Your task to perform on an android device: Search for the new ikea dresser Image 0: 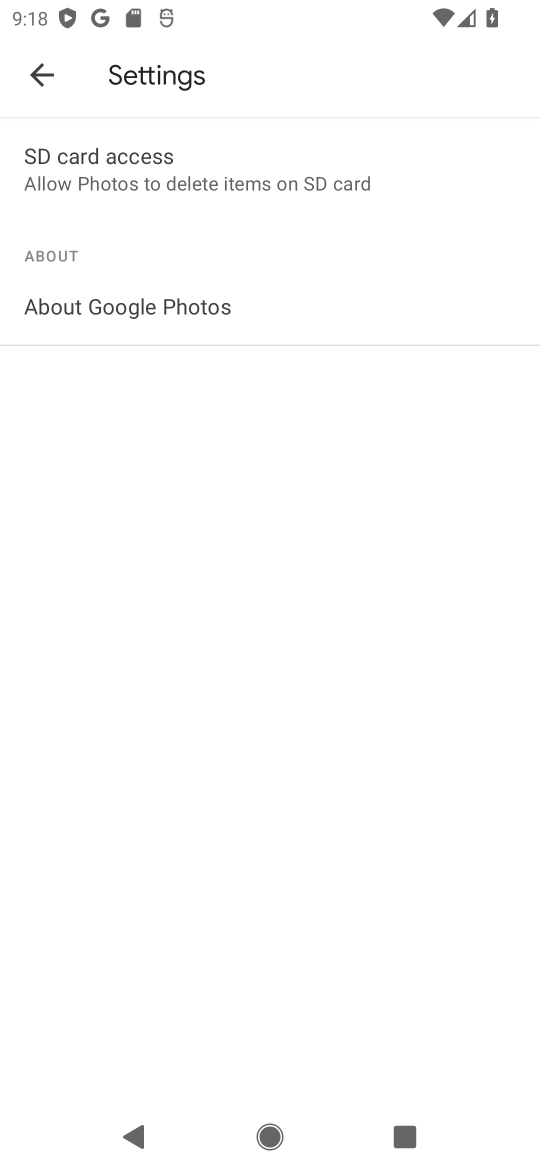
Step 0: press home button
Your task to perform on an android device: Search for the new ikea dresser Image 1: 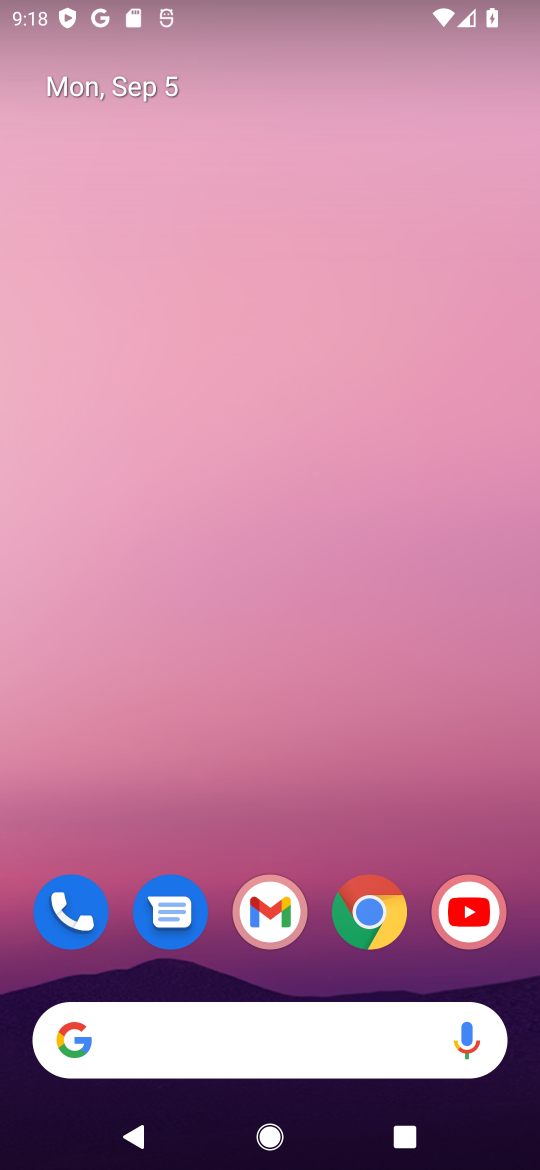
Step 1: click (370, 926)
Your task to perform on an android device: Search for the new ikea dresser Image 2: 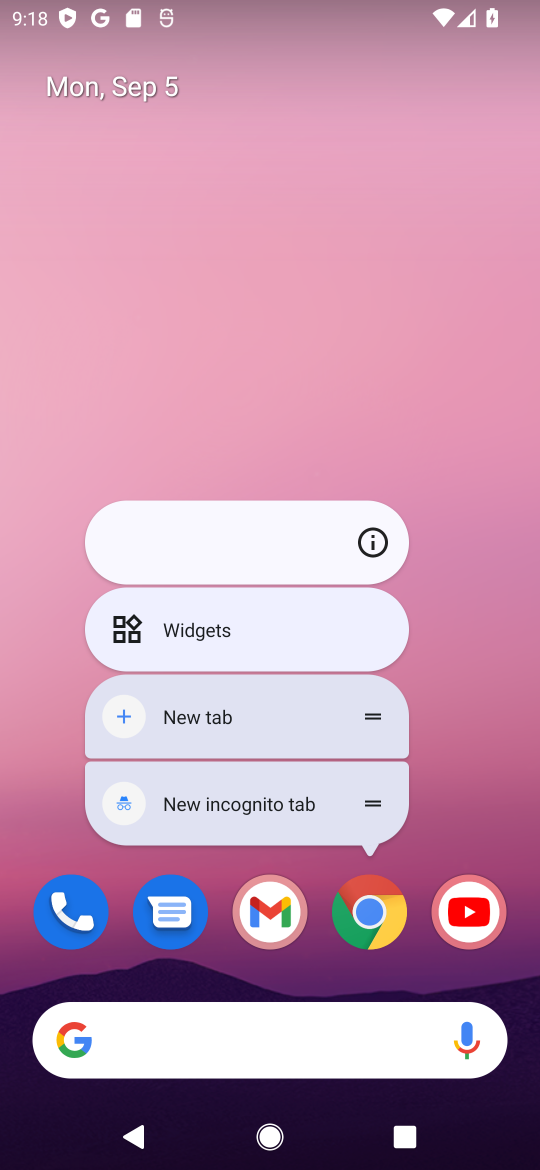
Step 2: click (376, 929)
Your task to perform on an android device: Search for the new ikea dresser Image 3: 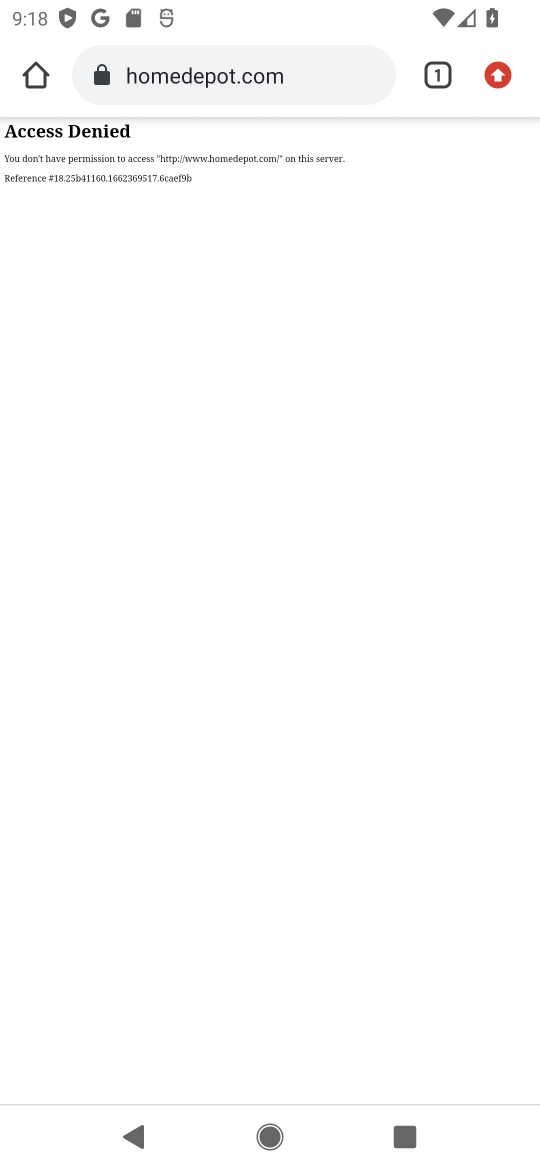
Step 3: click (302, 69)
Your task to perform on an android device: Search for the new ikea dresser Image 4: 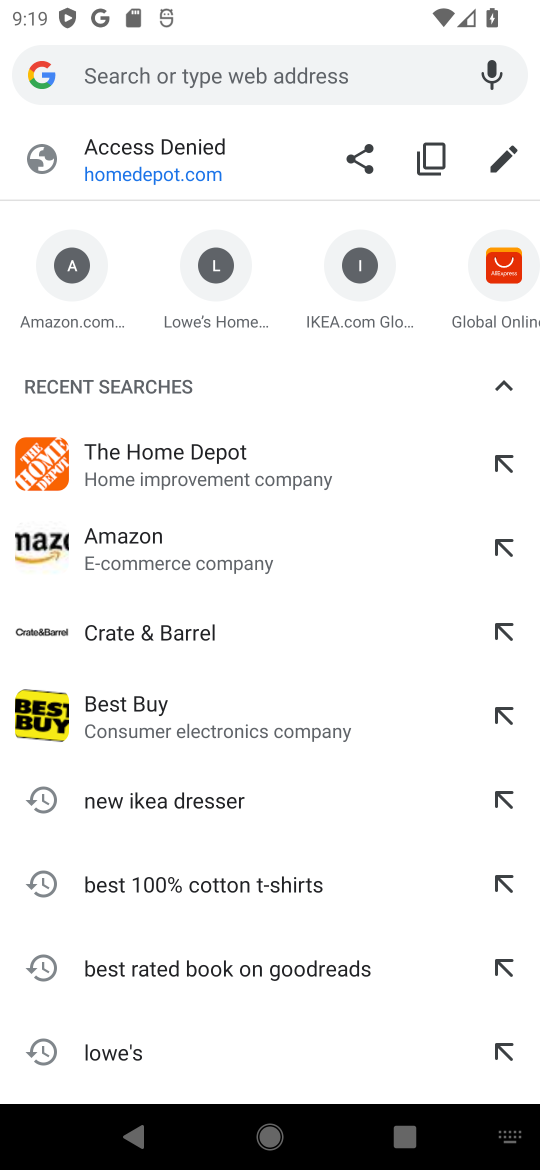
Step 4: type "new ikea dresser"
Your task to perform on an android device: Search for the new ikea dresser Image 5: 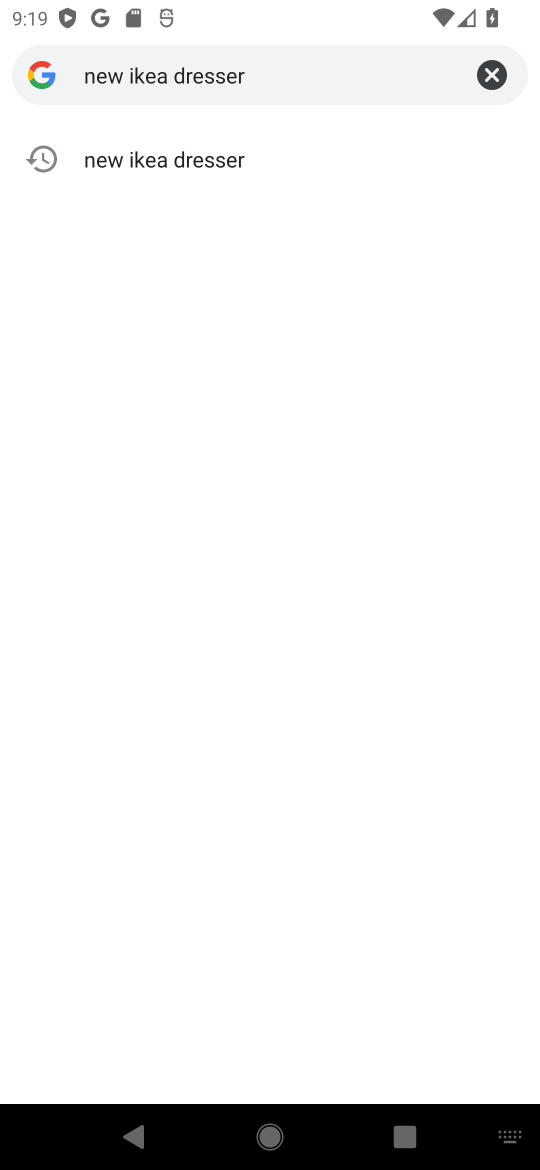
Step 5: press enter
Your task to perform on an android device: Search for the new ikea dresser Image 6: 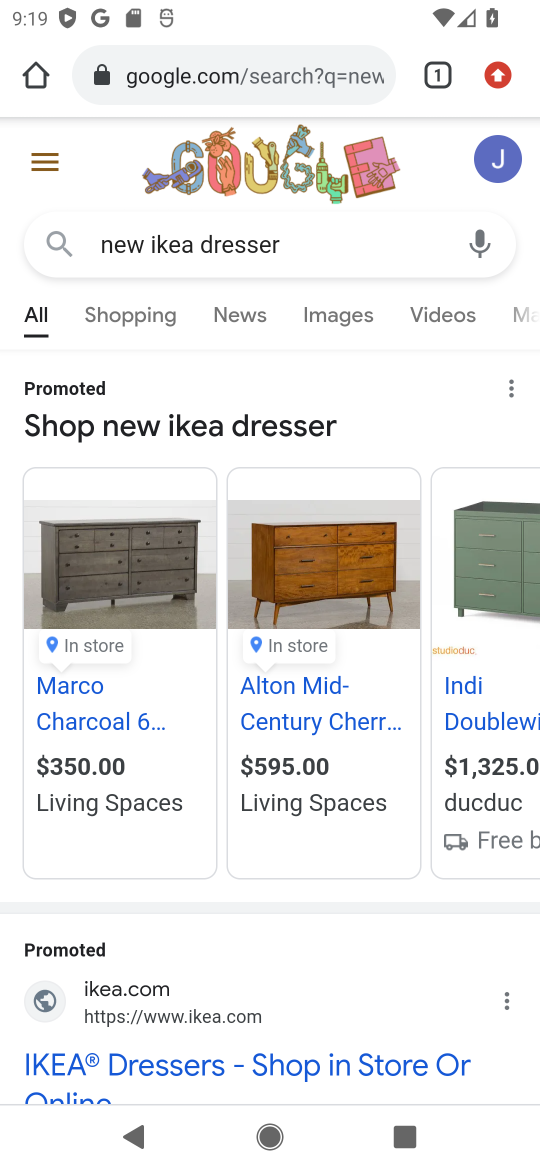
Step 6: click (324, 1064)
Your task to perform on an android device: Search for the new ikea dresser Image 7: 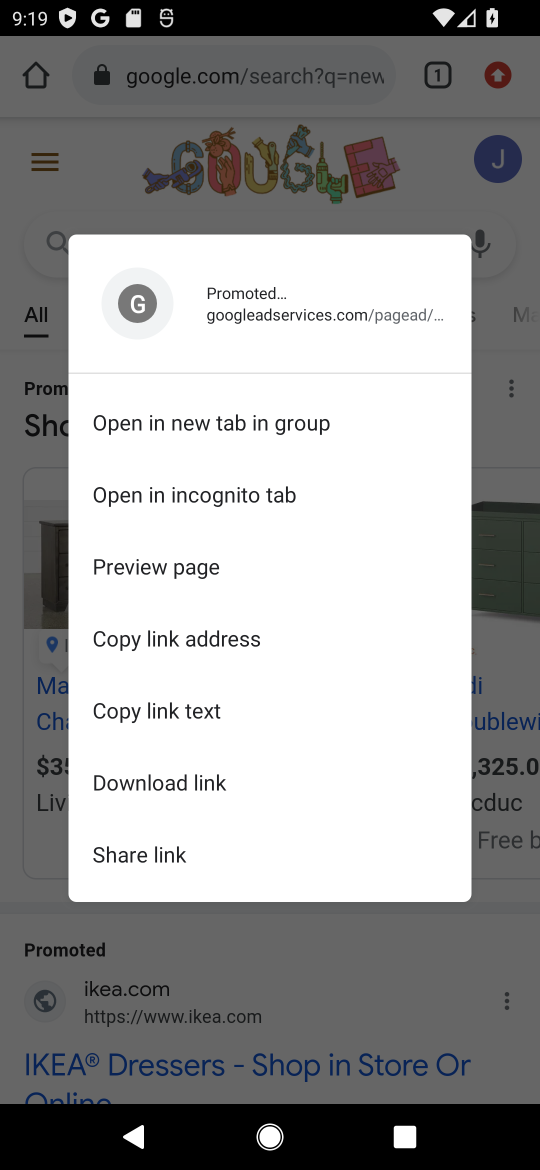
Step 7: click (489, 982)
Your task to perform on an android device: Search for the new ikea dresser Image 8: 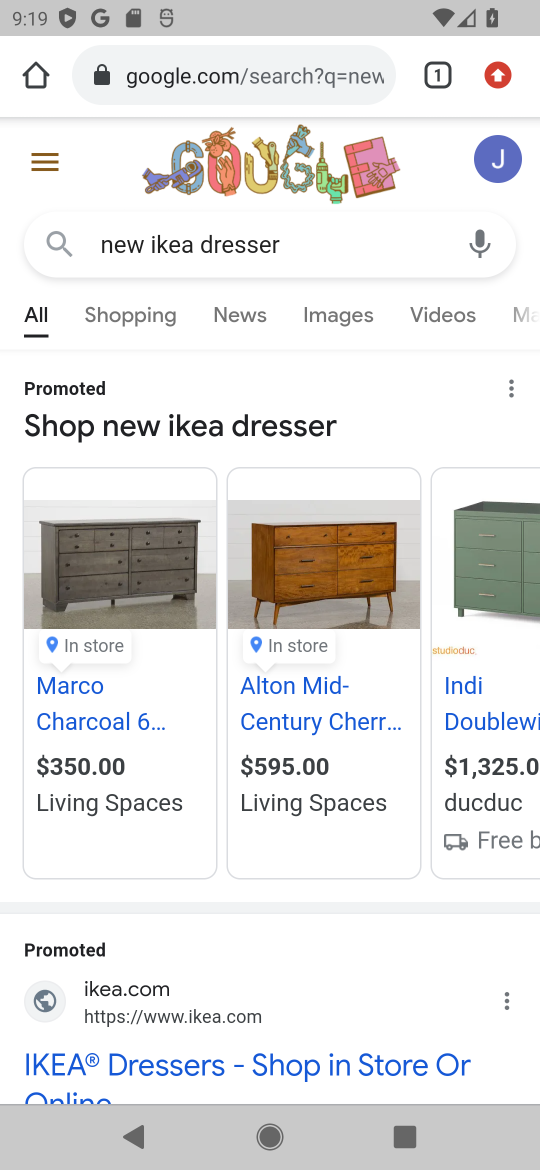
Step 8: drag from (404, 945) to (430, 497)
Your task to perform on an android device: Search for the new ikea dresser Image 9: 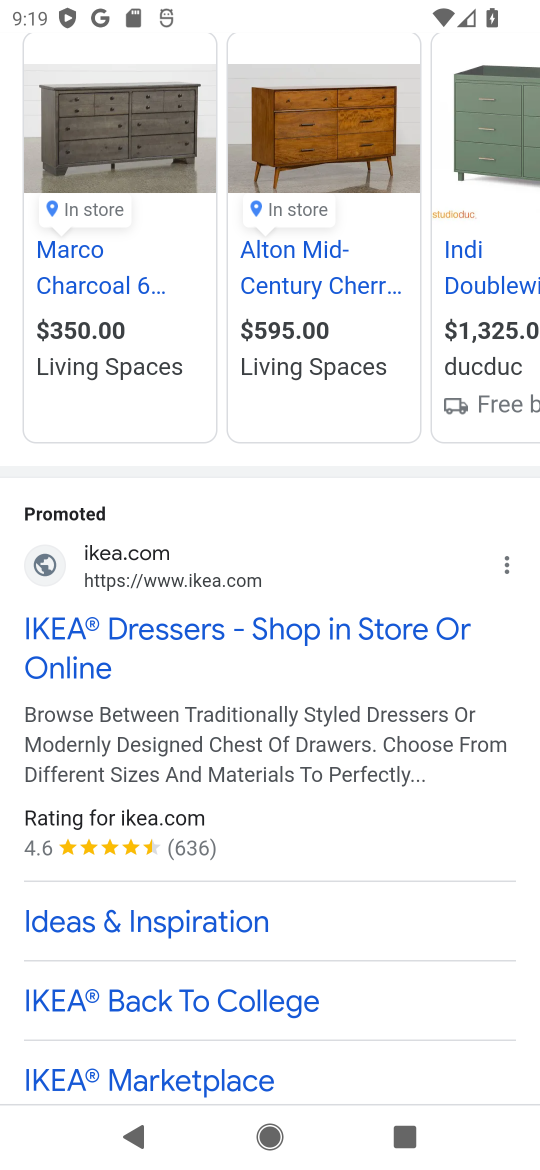
Step 9: click (281, 632)
Your task to perform on an android device: Search for the new ikea dresser Image 10: 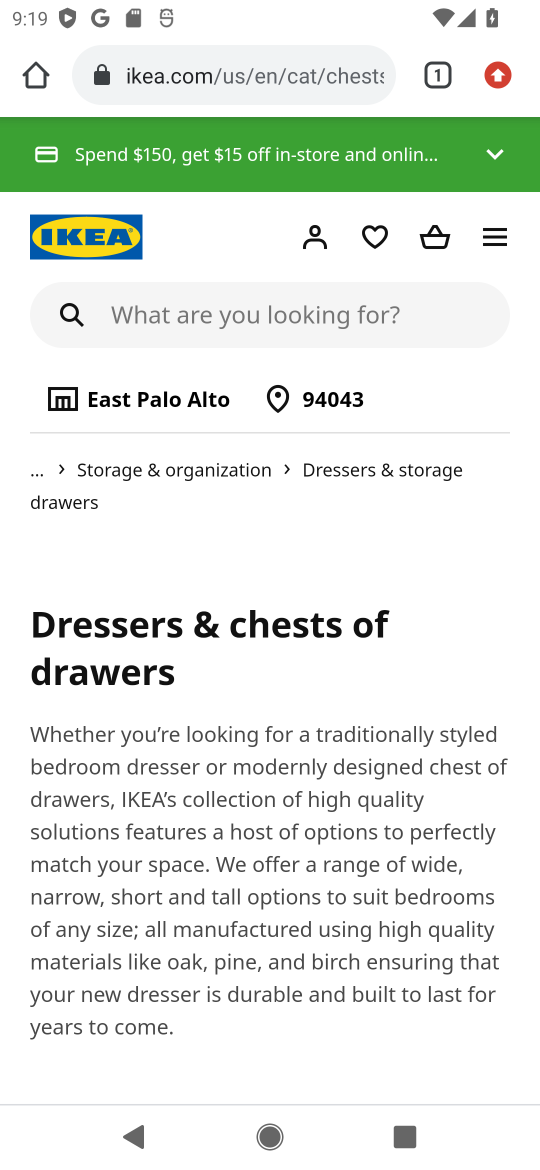
Step 10: drag from (190, 821) to (235, 570)
Your task to perform on an android device: Search for the new ikea dresser Image 11: 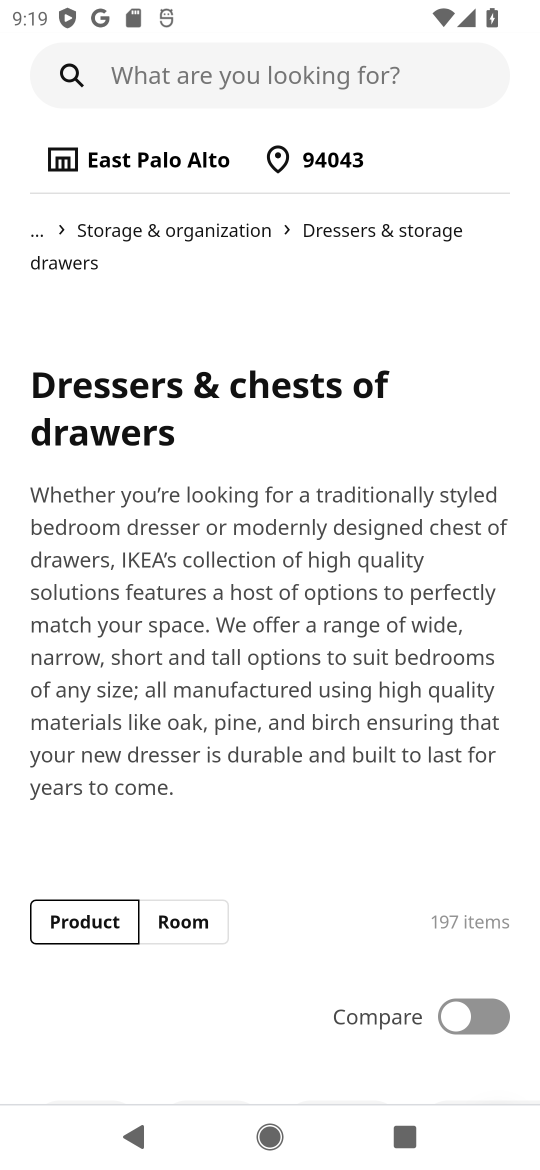
Step 11: click (226, 492)
Your task to perform on an android device: Search for the new ikea dresser Image 12: 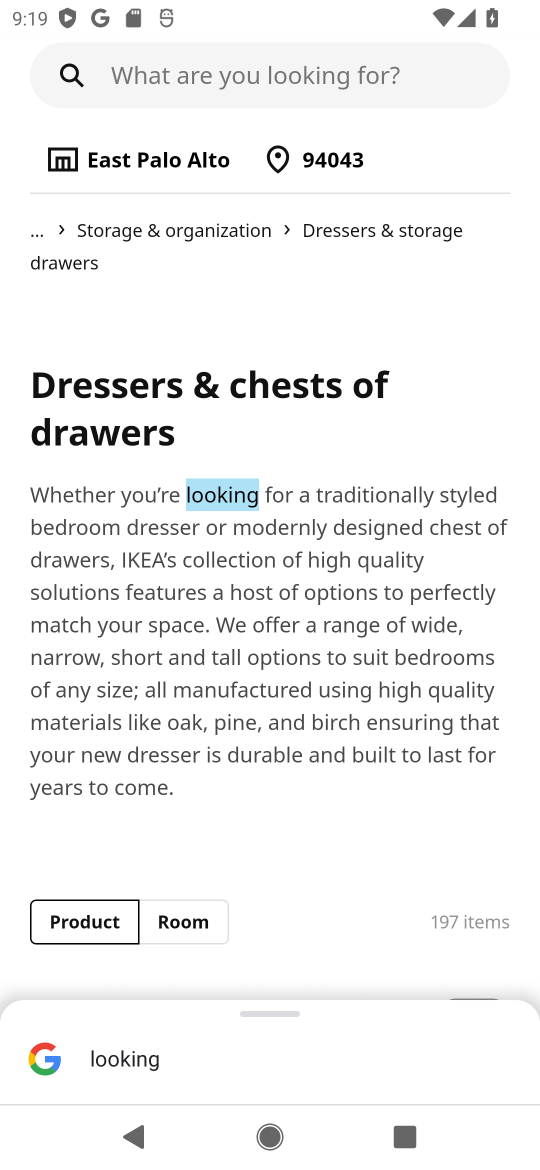
Step 12: click (262, 767)
Your task to perform on an android device: Search for the new ikea dresser Image 13: 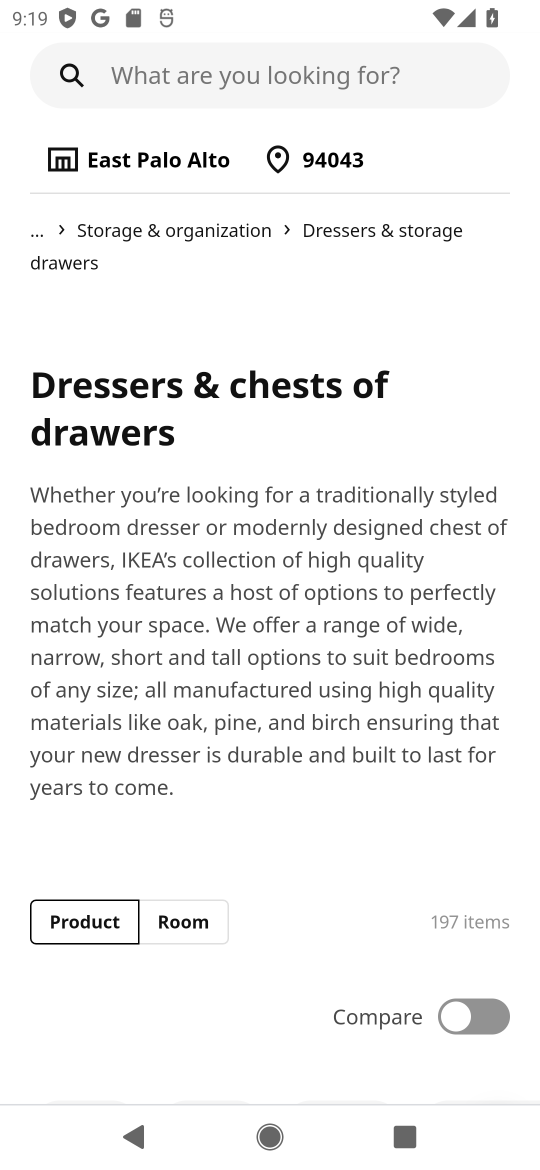
Step 13: task complete